Your task to perform on an android device: turn on notifications settings in the gmail app Image 0: 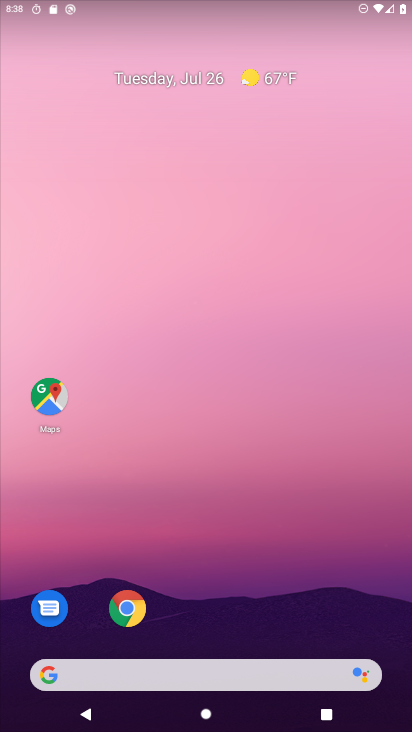
Step 0: drag from (218, 606) to (301, 0)
Your task to perform on an android device: turn on notifications settings in the gmail app Image 1: 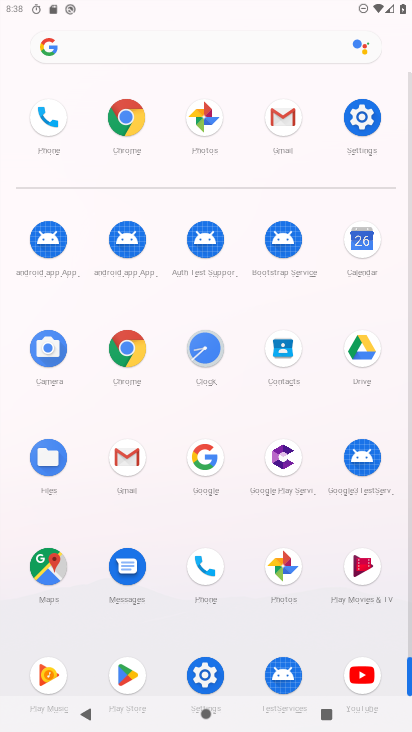
Step 1: click (125, 455)
Your task to perform on an android device: turn on notifications settings in the gmail app Image 2: 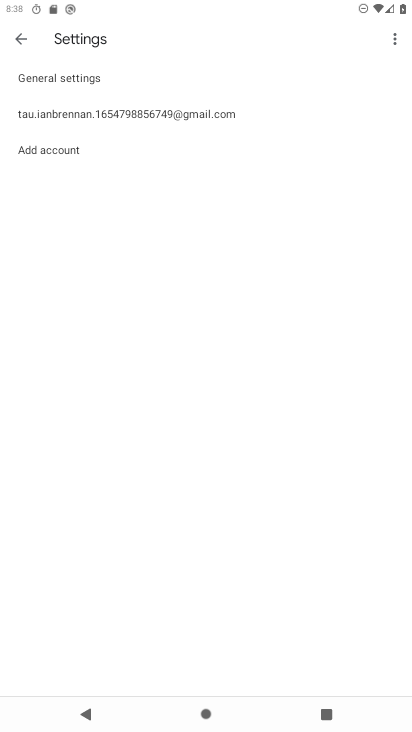
Step 2: click (93, 81)
Your task to perform on an android device: turn on notifications settings in the gmail app Image 3: 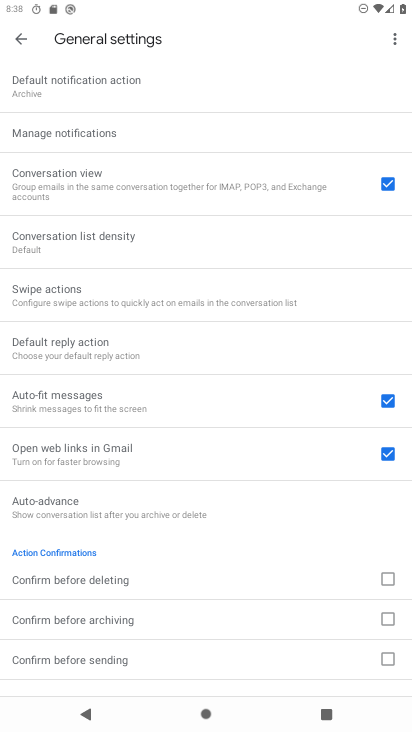
Step 3: click (92, 134)
Your task to perform on an android device: turn on notifications settings in the gmail app Image 4: 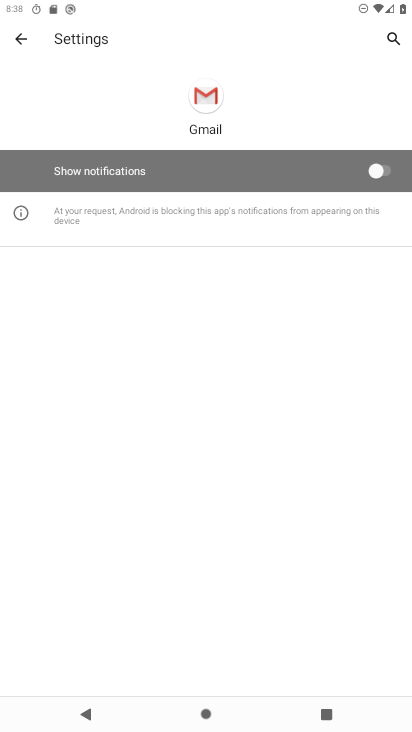
Step 4: click (392, 165)
Your task to perform on an android device: turn on notifications settings in the gmail app Image 5: 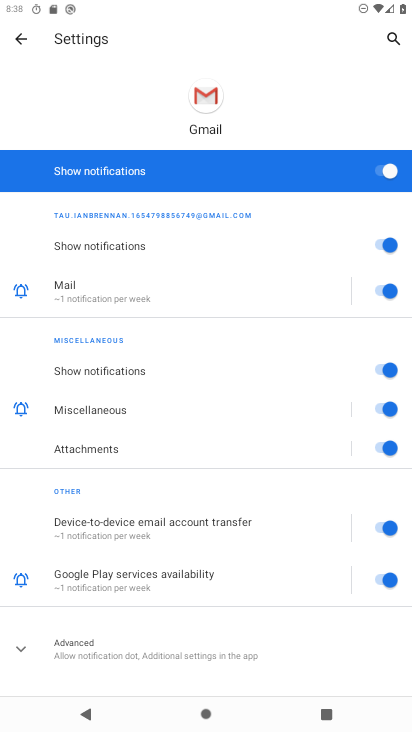
Step 5: task complete